Your task to perform on an android device: open app "PUBG MOBILE" Image 0: 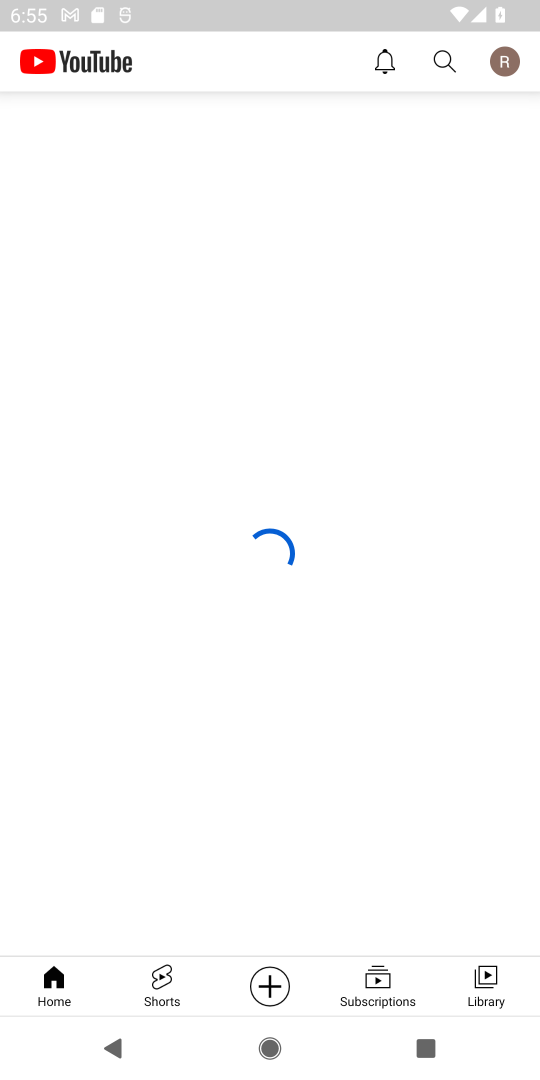
Step 0: press home button
Your task to perform on an android device: open app "PUBG MOBILE" Image 1: 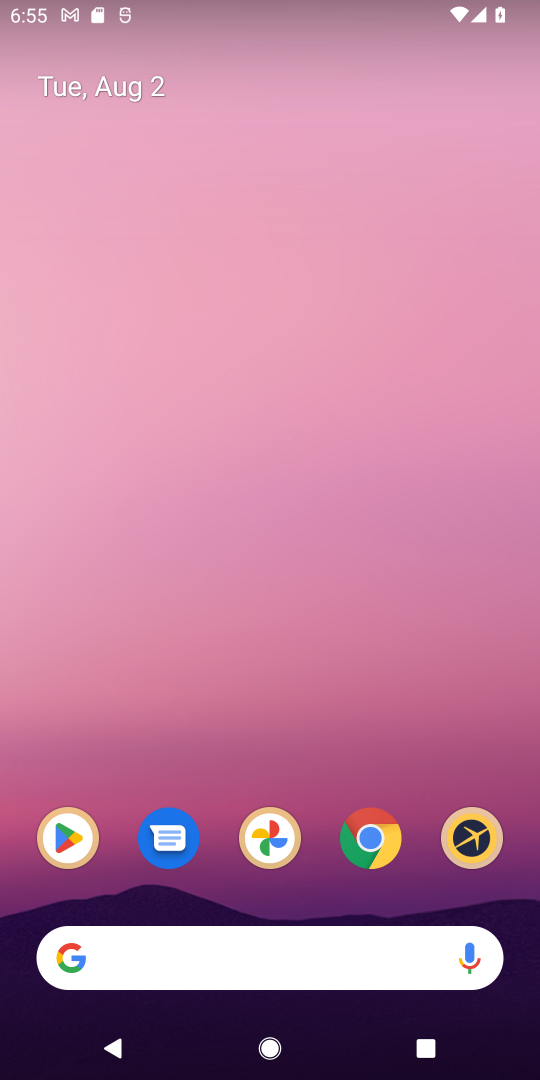
Step 1: click (50, 849)
Your task to perform on an android device: open app "PUBG MOBILE" Image 2: 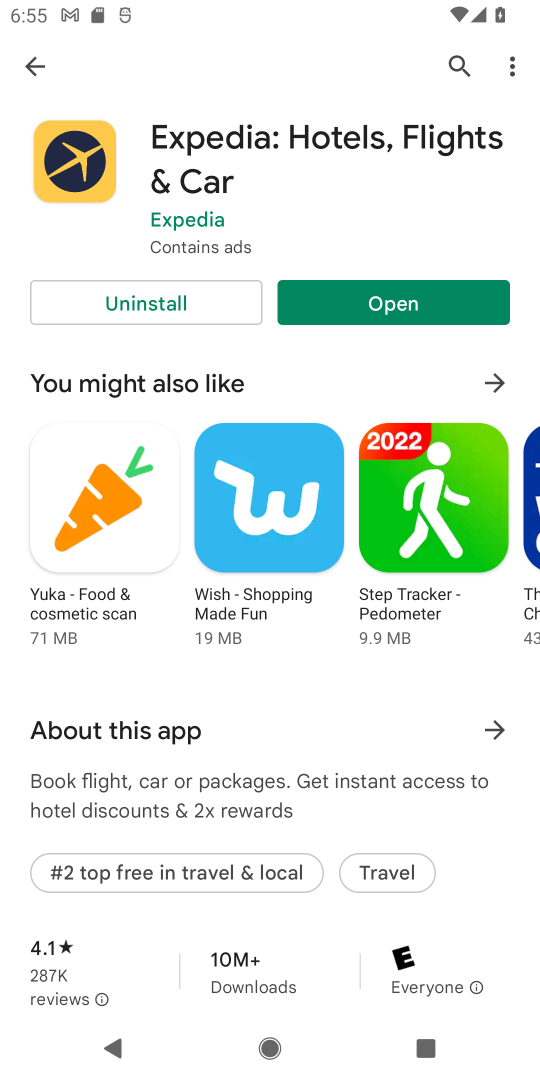
Step 2: click (460, 67)
Your task to perform on an android device: open app "PUBG MOBILE" Image 3: 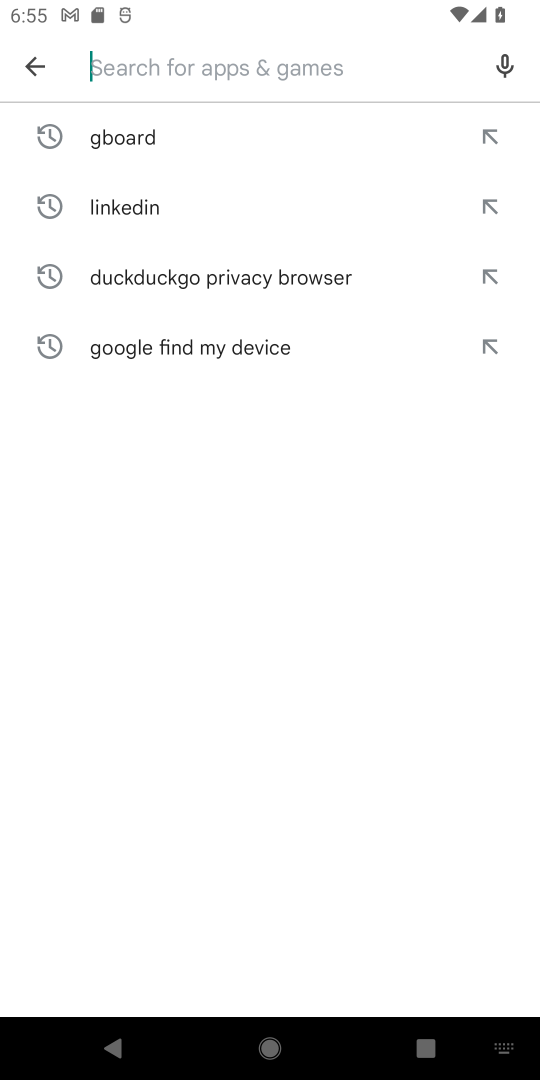
Step 3: type "pubg mobile"
Your task to perform on an android device: open app "PUBG MOBILE" Image 4: 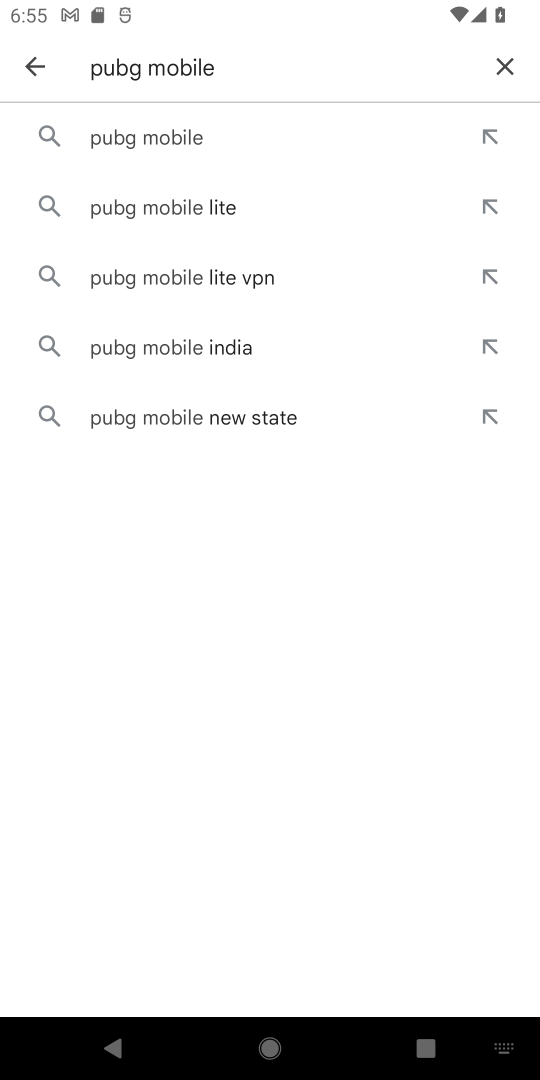
Step 4: click (156, 123)
Your task to perform on an android device: open app "PUBG MOBILE" Image 5: 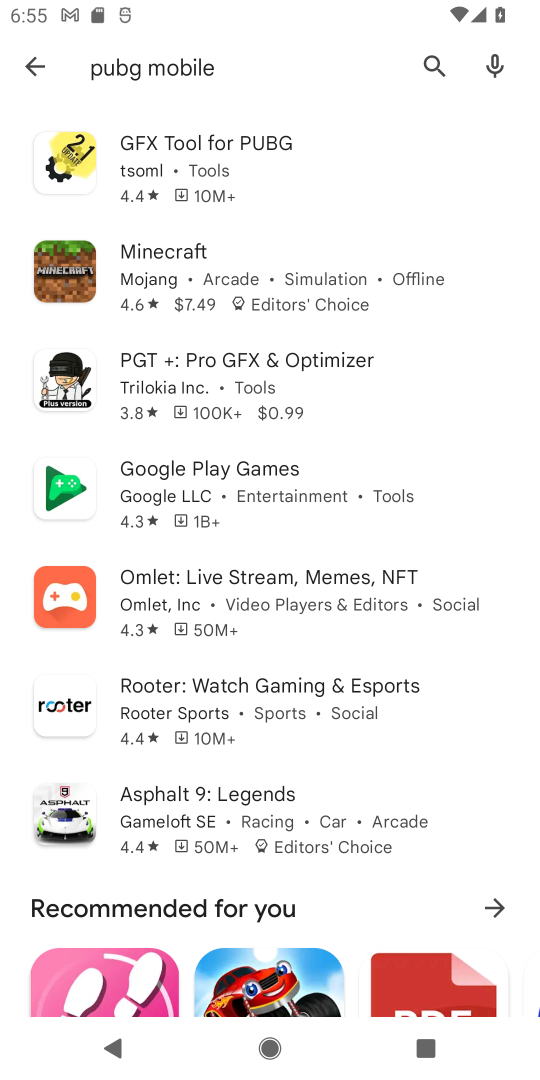
Step 5: task complete